Your task to perform on an android device: Open Amazon Image 0: 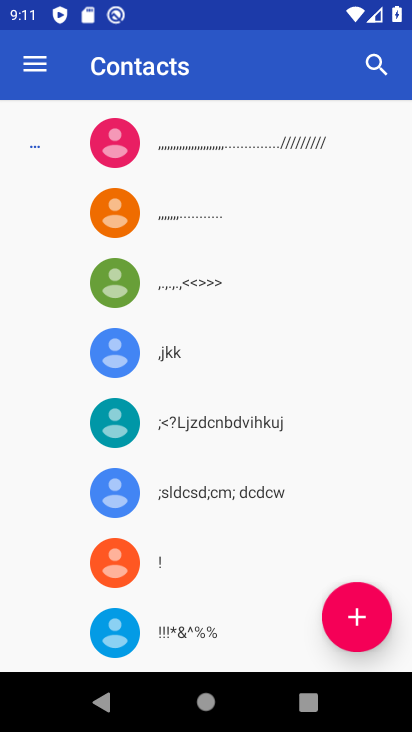
Step 0: press home button
Your task to perform on an android device: Open Amazon Image 1: 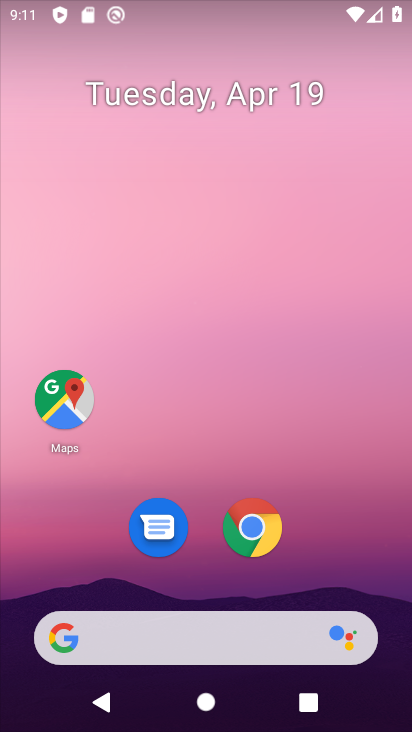
Step 1: drag from (263, 678) to (294, 11)
Your task to perform on an android device: Open Amazon Image 2: 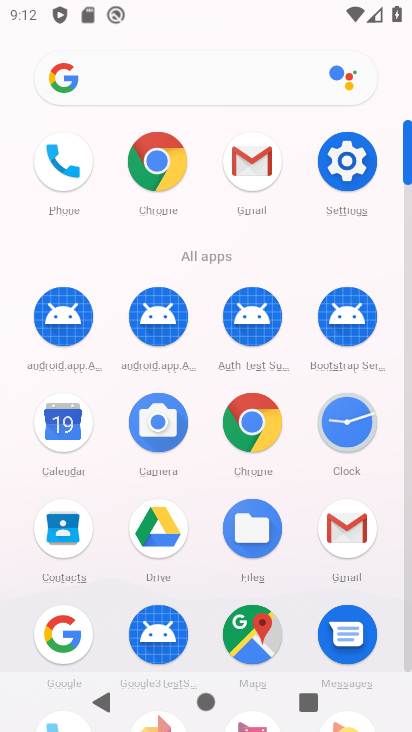
Step 2: click (257, 441)
Your task to perform on an android device: Open Amazon Image 3: 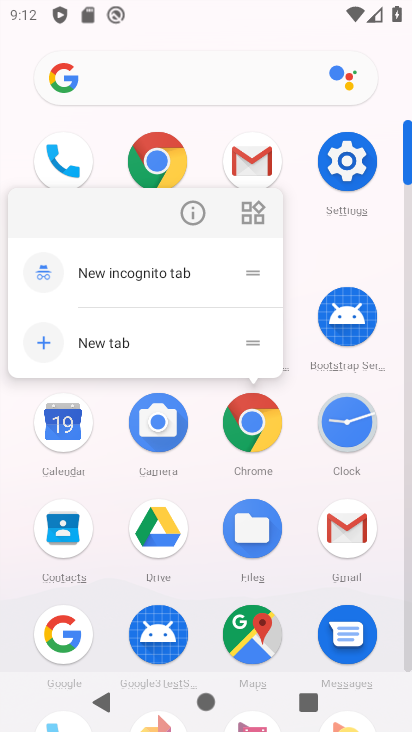
Step 3: click (246, 439)
Your task to perform on an android device: Open Amazon Image 4: 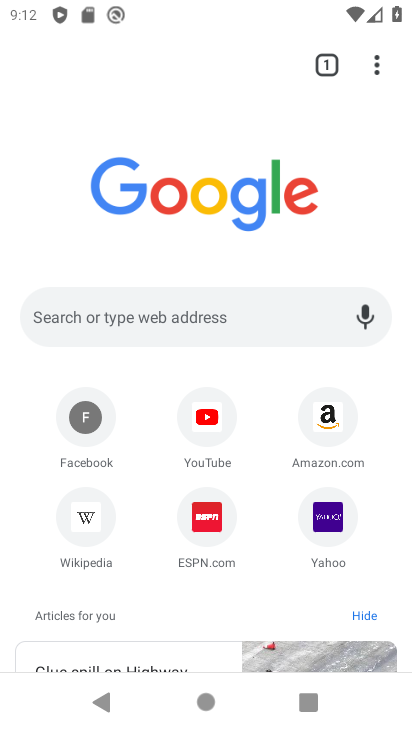
Step 4: click (338, 425)
Your task to perform on an android device: Open Amazon Image 5: 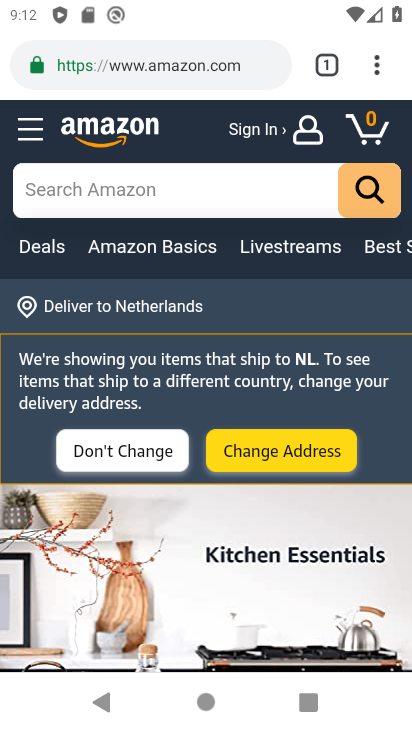
Step 5: task complete